Your task to perform on an android device: add a contact in the contacts app Image 0: 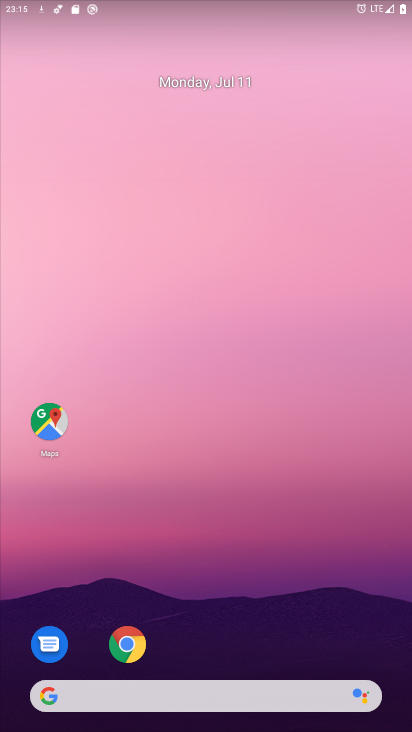
Step 0: drag from (213, 631) to (228, 372)
Your task to perform on an android device: add a contact in the contacts app Image 1: 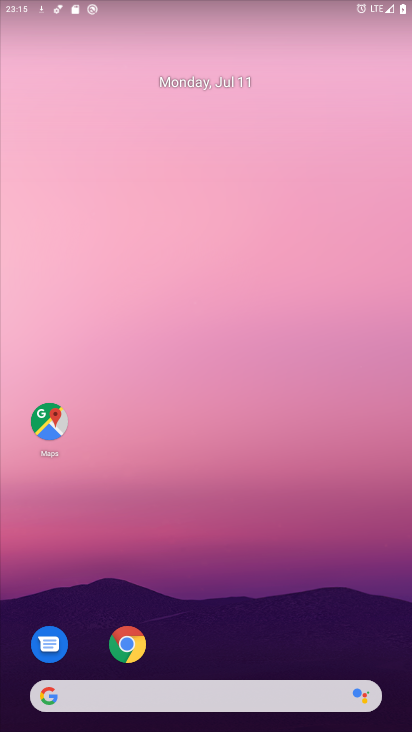
Step 1: drag from (229, 676) to (255, 12)
Your task to perform on an android device: add a contact in the contacts app Image 2: 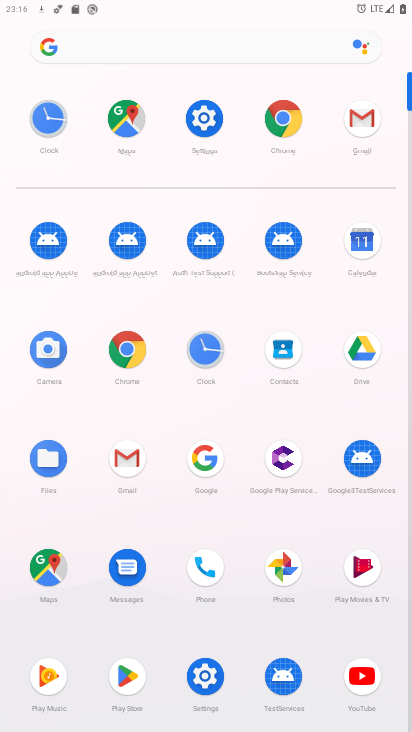
Step 2: click (210, 568)
Your task to perform on an android device: add a contact in the contacts app Image 3: 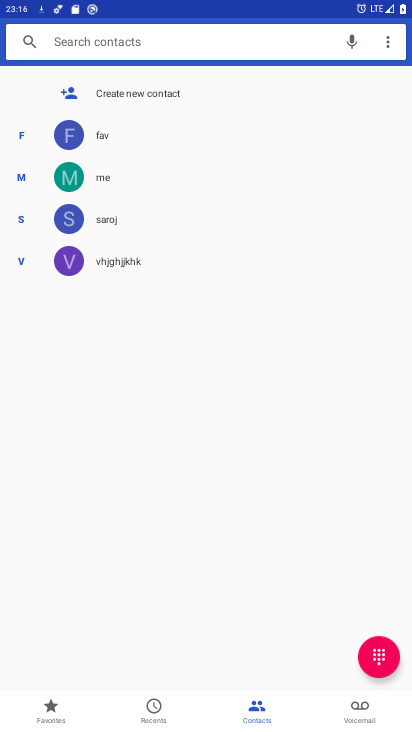
Step 3: click (133, 81)
Your task to perform on an android device: add a contact in the contacts app Image 4: 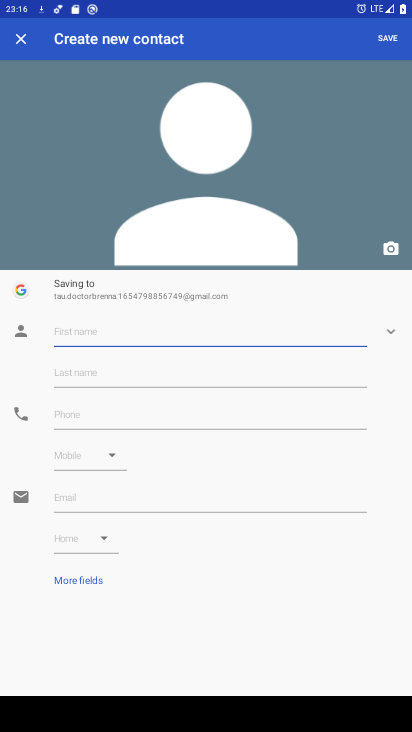
Step 4: click (202, 333)
Your task to perform on an android device: add a contact in the contacts app Image 5: 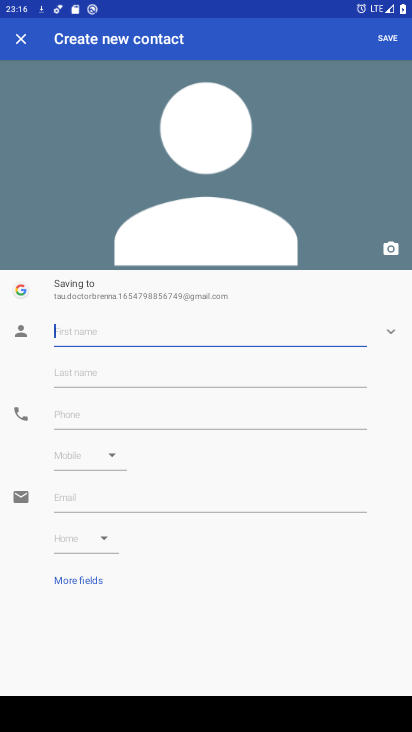
Step 5: type "lalalalala "
Your task to perform on an android device: add a contact in the contacts app Image 6: 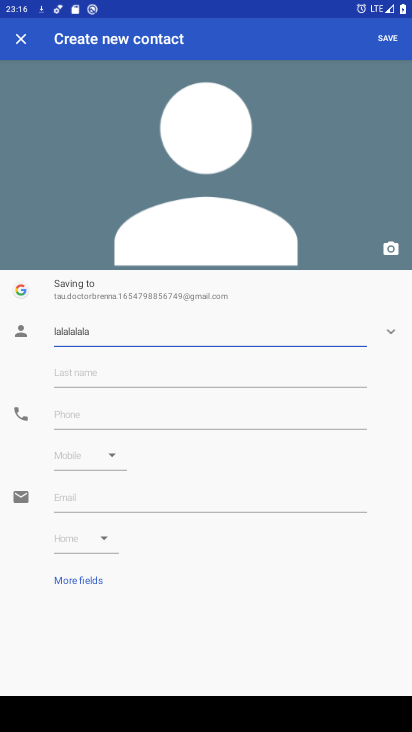
Step 6: click (110, 420)
Your task to perform on an android device: add a contact in the contacts app Image 7: 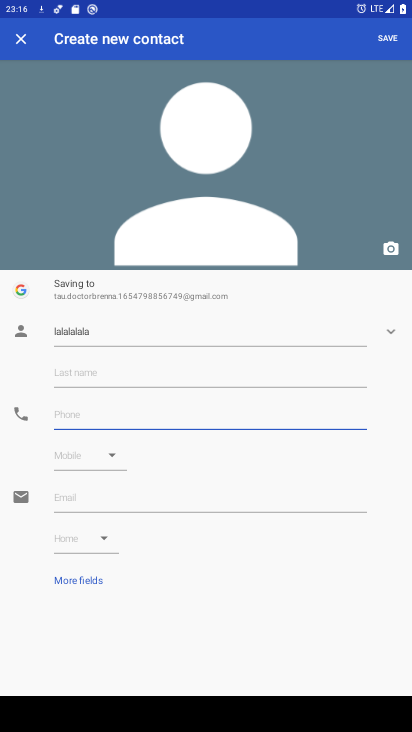
Step 7: type "123456789 "
Your task to perform on an android device: add a contact in the contacts app Image 8: 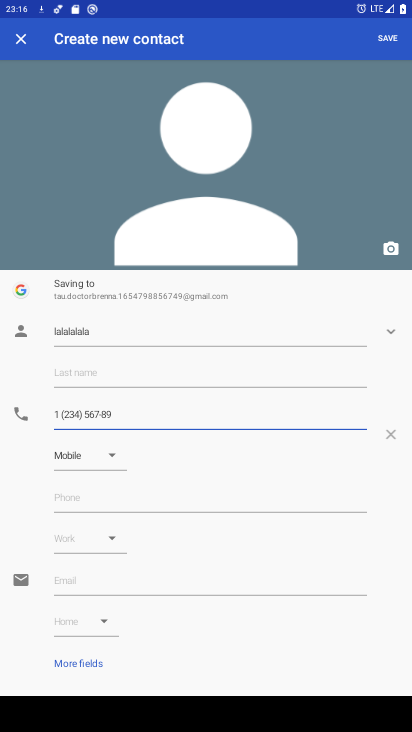
Step 8: click (389, 40)
Your task to perform on an android device: add a contact in the contacts app Image 9: 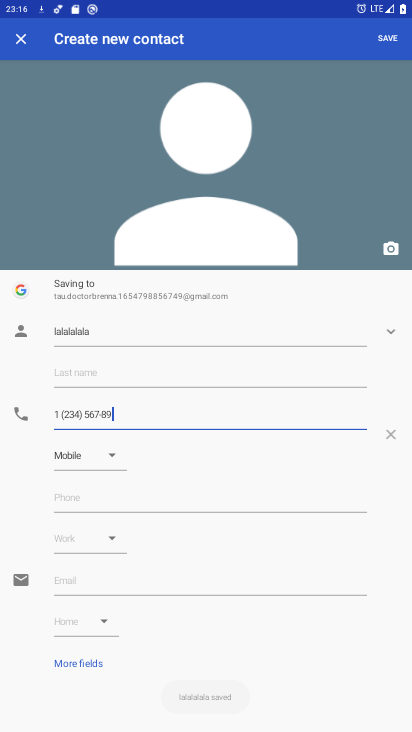
Step 9: task complete